Your task to perform on an android device: Go to eBay Image 0: 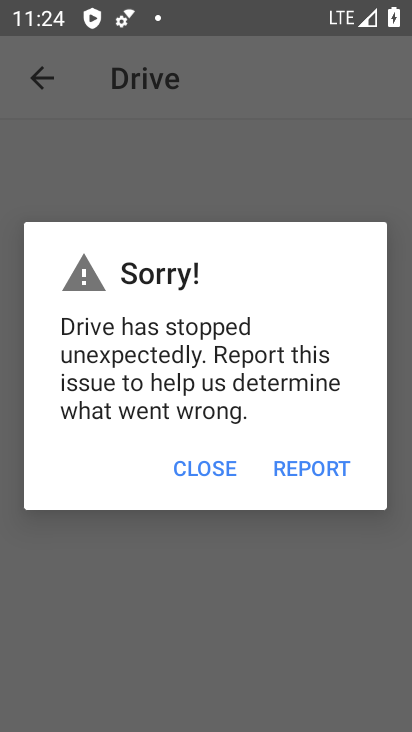
Step 0: click (215, 470)
Your task to perform on an android device: Go to eBay Image 1: 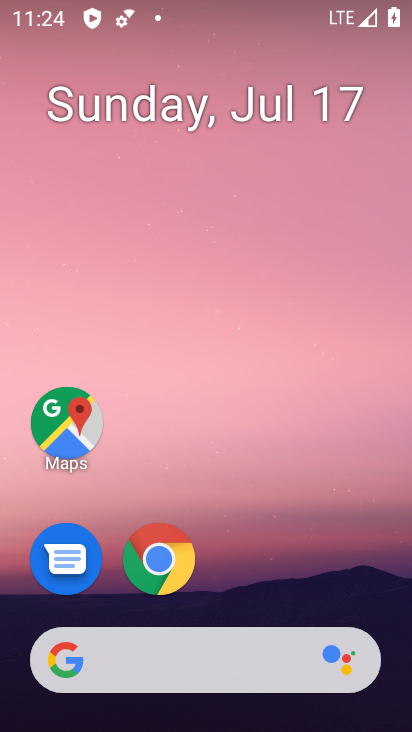
Step 1: click (164, 563)
Your task to perform on an android device: Go to eBay Image 2: 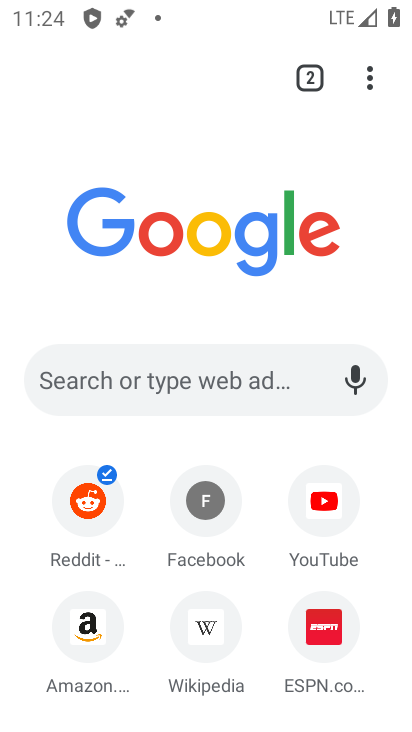
Step 2: click (119, 379)
Your task to perform on an android device: Go to eBay Image 3: 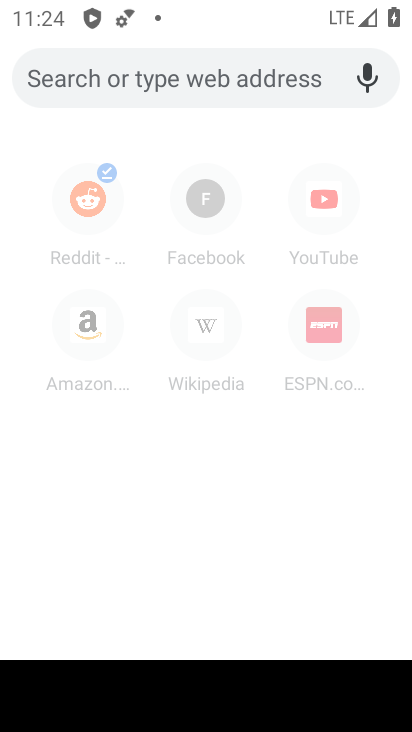
Step 3: type "ebay"
Your task to perform on an android device: Go to eBay Image 4: 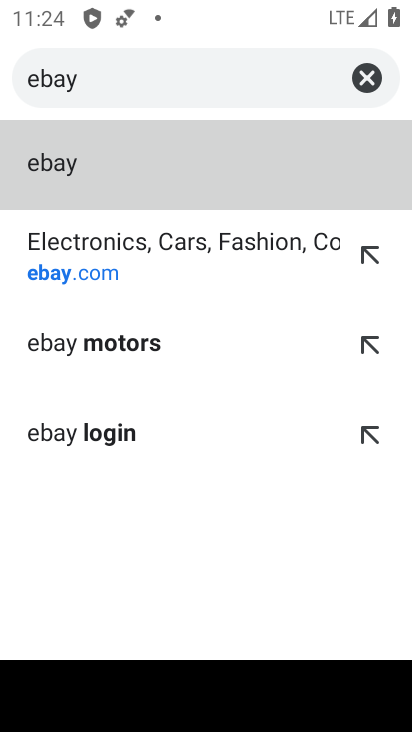
Step 4: click (156, 263)
Your task to perform on an android device: Go to eBay Image 5: 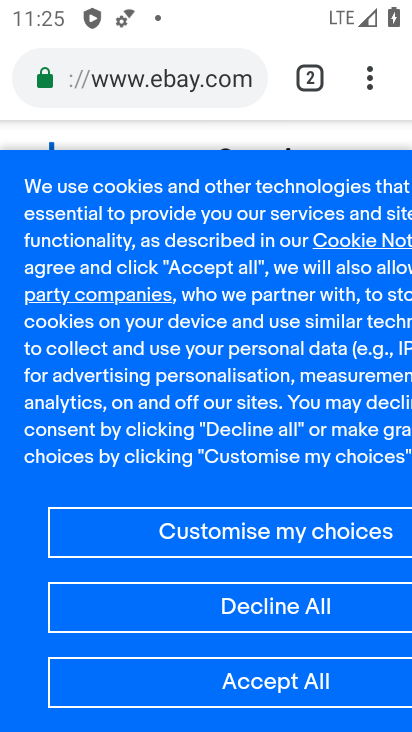
Step 5: task complete